Your task to perform on an android device: read, delete, or share a saved page in the chrome app Image 0: 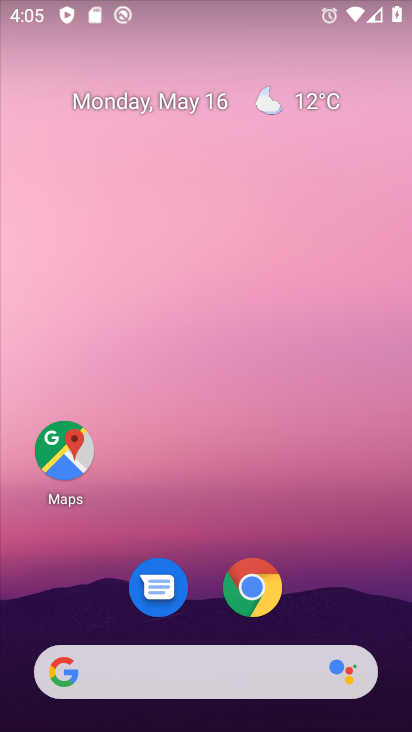
Step 0: click (246, 579)
Your task to perform on an android device: read, delete, or share a saved page in the chrome app Image 1: 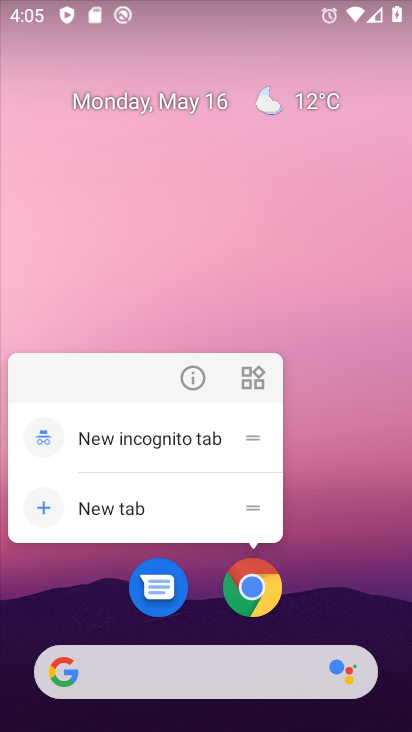
Step 1: click (246, 577)
Your task to perform on an android device: read, delete, or share a saved page in the chrome app Image 2: 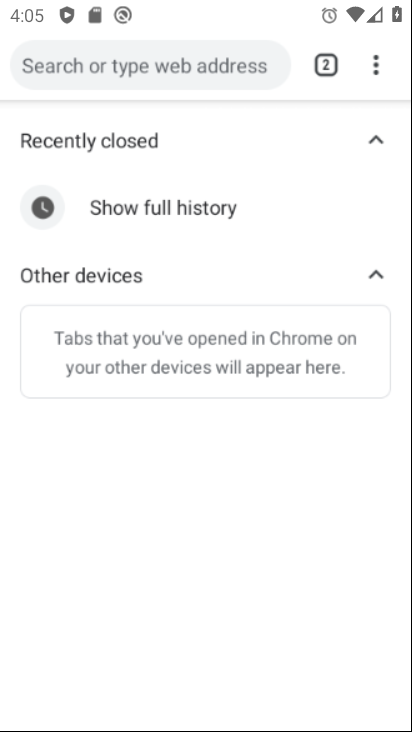
Step 2: click (246, 577)
Your task to perform on an android device: read, delete, or share a saved page in the chrome app Image 3: 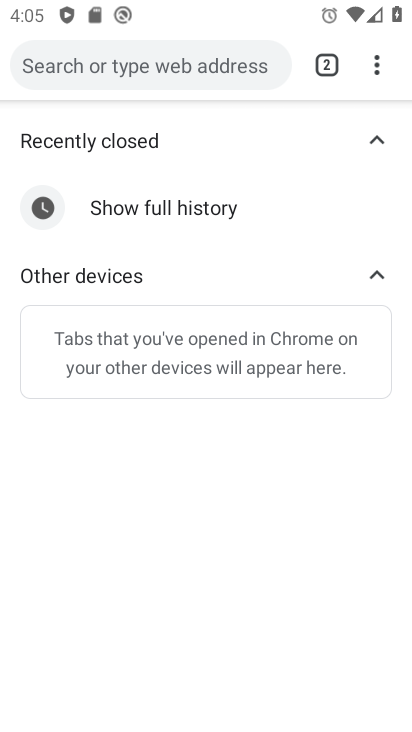
Step 3: click (374, 62)
Your task to perform on an android device: read, delete, or share a saved page in the chrome app Image 4: 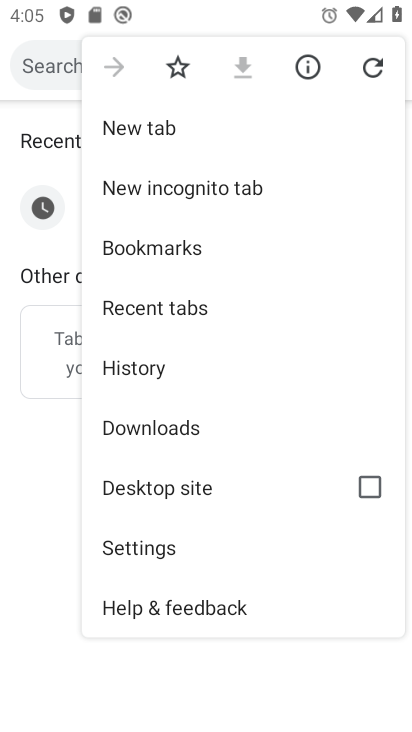
Step 4: click (154, 547)
Your task to perform on an android device: read, delete, or share a saved page in the chrome app Image 5: 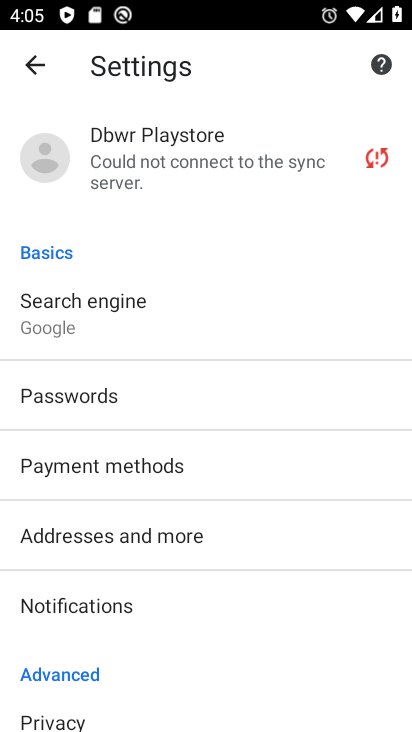
Step 5: drag from (247, 692) to (266, 466)
Your task to perform on an android device: read, delete, or share a saved page in the chrome app Image 6: 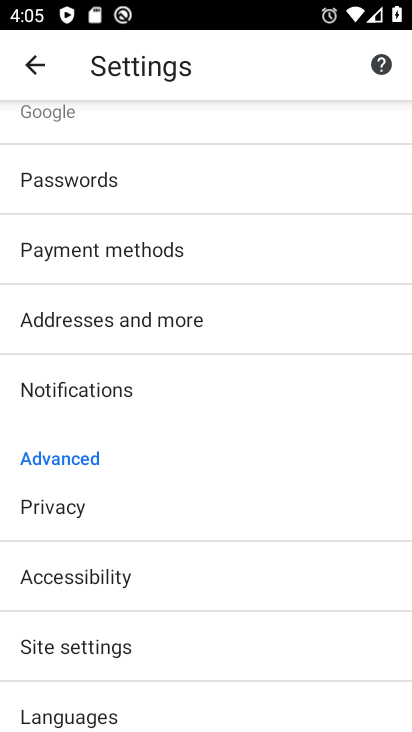
Step 6: drag from (282, 671) to (270, 447)
Your task to perform on an android device: read, delete, or share a saved page in the chrome app Image 7: 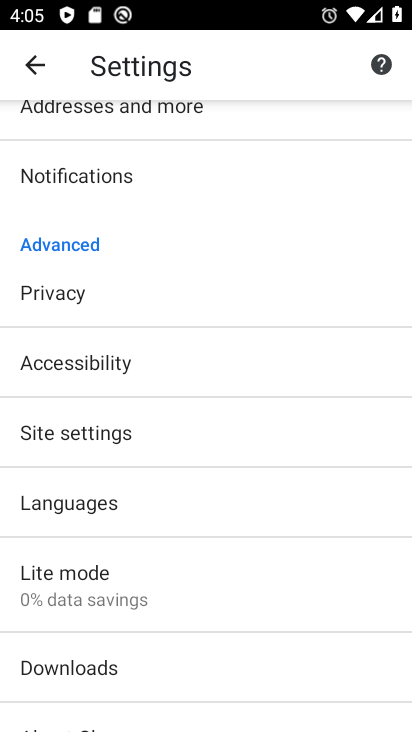
Step 7: drag from (224, 190) to (228, 558)
Your task to perform on an android device: read, delete, or share a saved page in the chrome app Image 8: 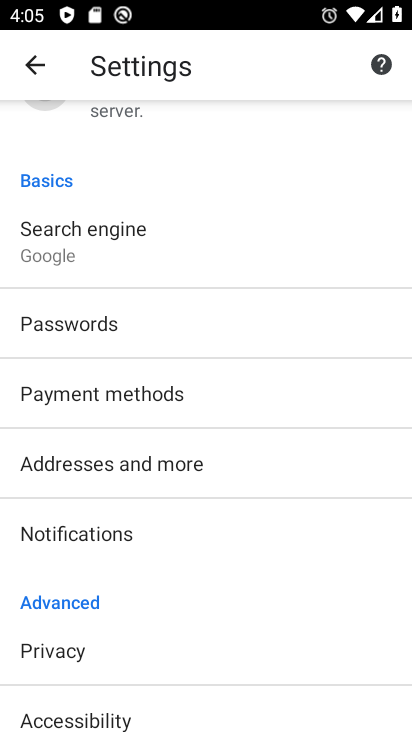
Step 8: click (27, 65)
Your task to perform on an android device: read, delete, or share a saved page in the chrome app Image 9: 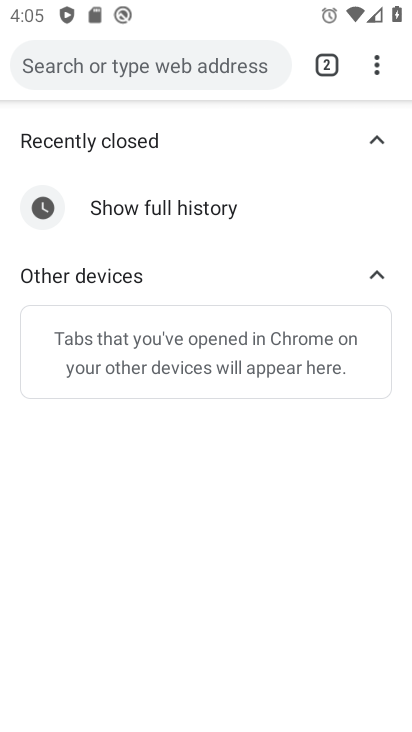
Step 9: click (375, 68)
Your task to perform on an android device: read, delete, or share a saved page in the chrome app Image 10: 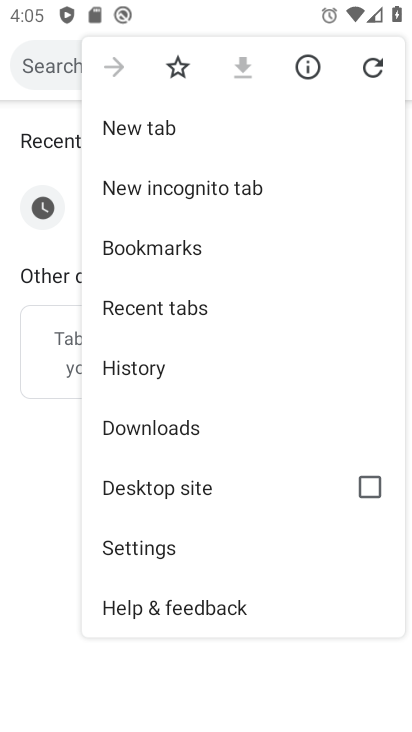
Step 10: click (133, 423)
Your task to perform on an android device: read, delete, or share a saved page in the chrome app Image 11: 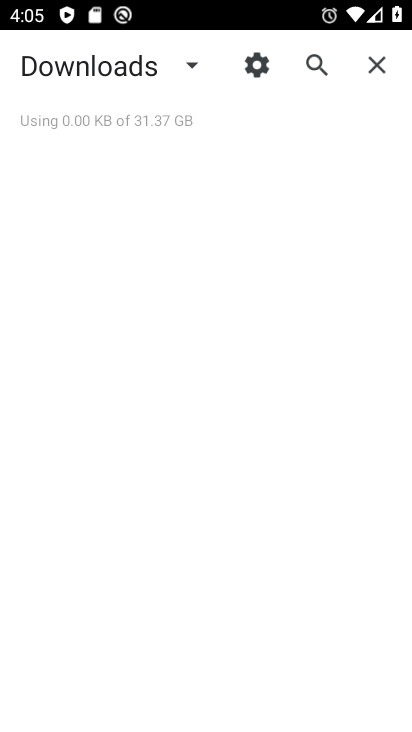
Step 11: task complete